Your task to perform on an android device: Open Chrome and go to settings Image 0: 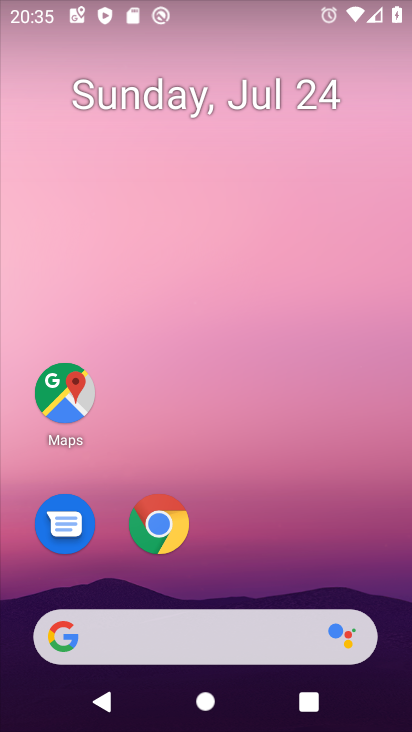
Step 0: click (169, 533)
Your task to perform on an android device: Open Chrome and go to settings Image 1: 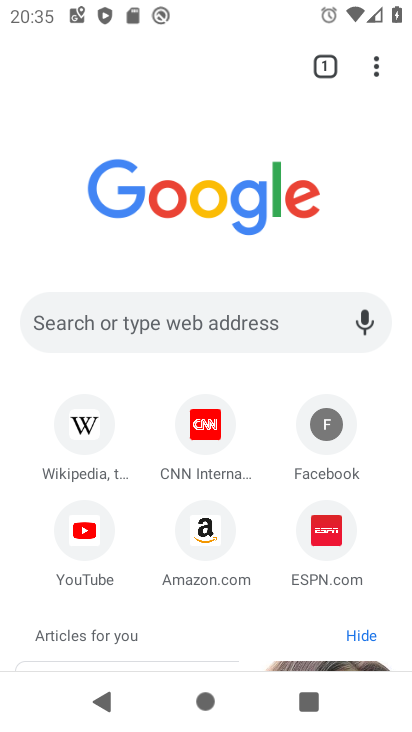
Step 1: click (376, 70)
Your task to perform on an android device: Open Chrome and go to settings Image 2: 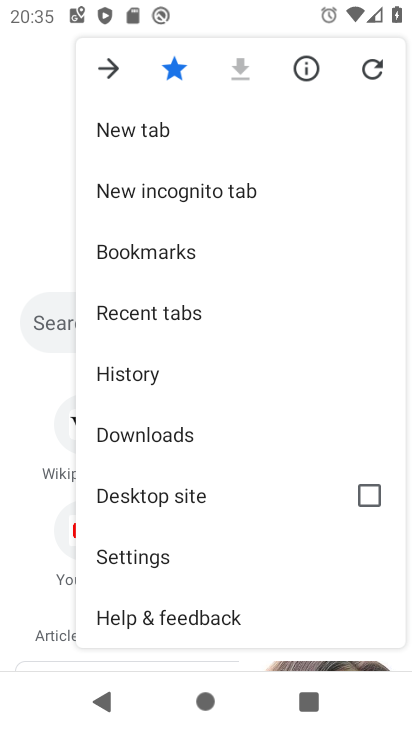
Step 2: click (152, 559)
Your task to perform on an android device: Open Chrome and go to settings Image 3: 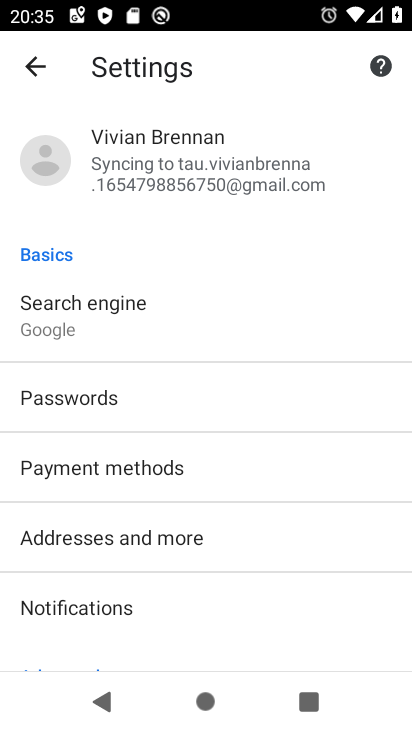
Step 3: task complete